Your task to perform on an android device: snooze an email in the gmail app Image 0: 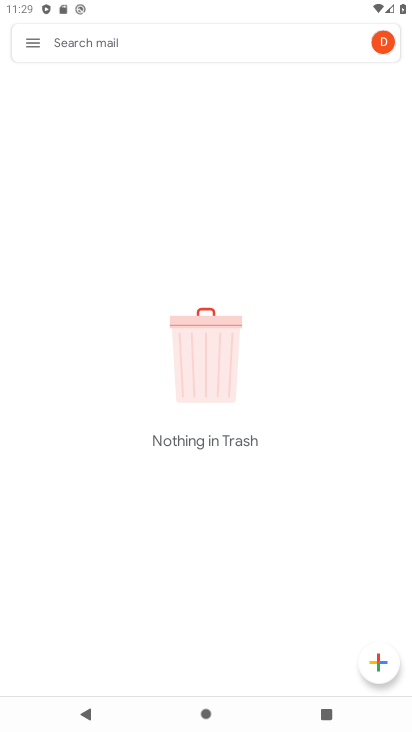
Step 0: click (28, 38)
Your task to perform on an android device: snooze an email in the gmail app Image 1: 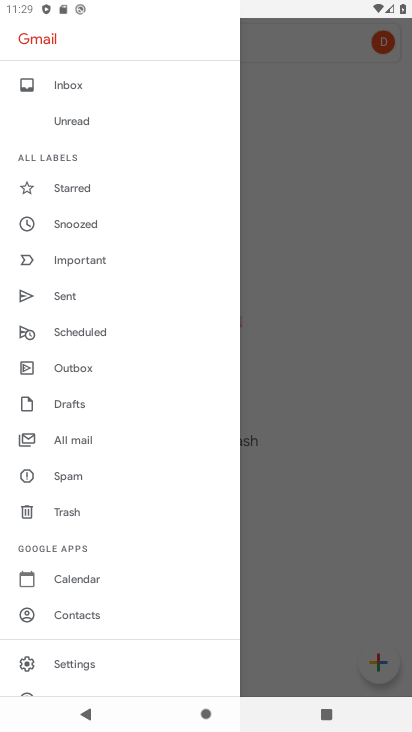
Step 1: click (80, 437)
Your task to perform on an android device: snooze an email in the gmail app Image 2: 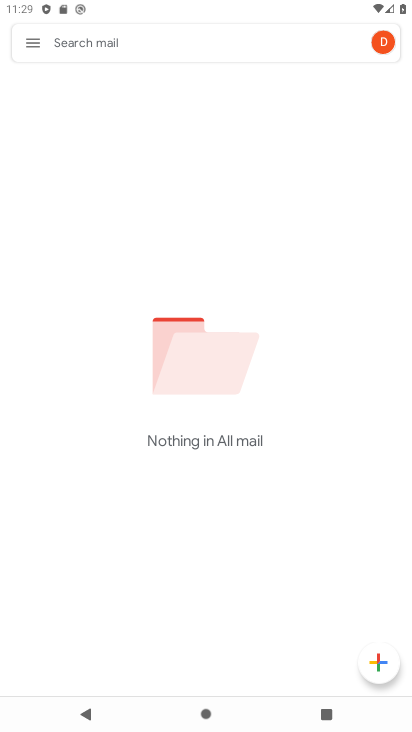
Step 2: task complete